Your task to perform on an android device: check google app version Image 0: 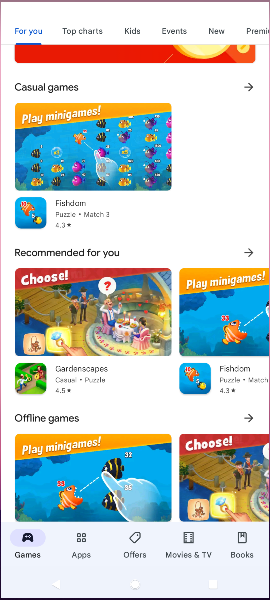
Step 0: press home button
Your task to perform on an android device: check google app version Image 1: 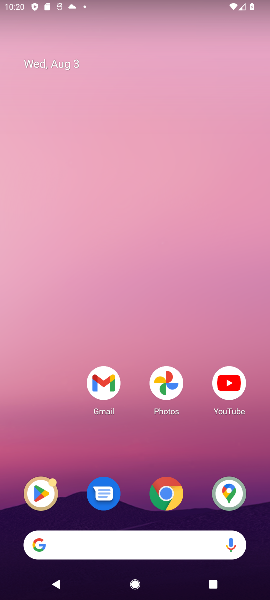
Step 1: drag from (136, 468) to (157, 30)
Your task to perform on an android device: check google app version Image 2: 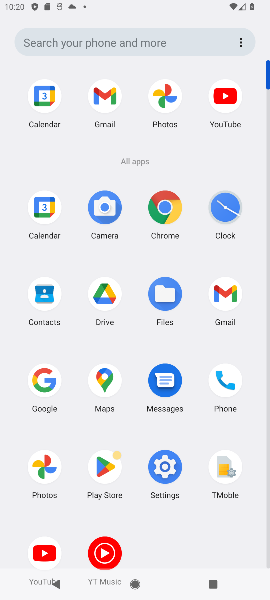
Step 2: click (42, 375)
Your task to perform on an android device: check google app version Image 3: 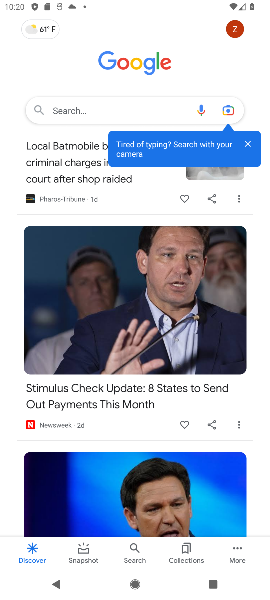
Step 3: click (236, 30)
Your task to perform on an android device: check google app version Image 4: 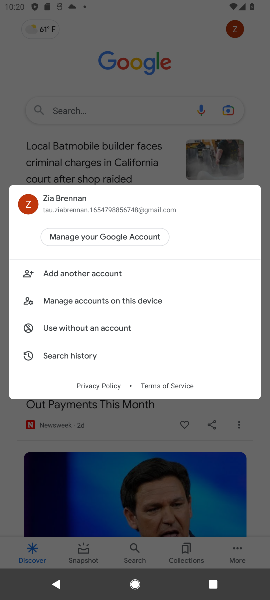
Step 4: click (227, 517)
Your task to perform on an android device: check google app version Image 5: 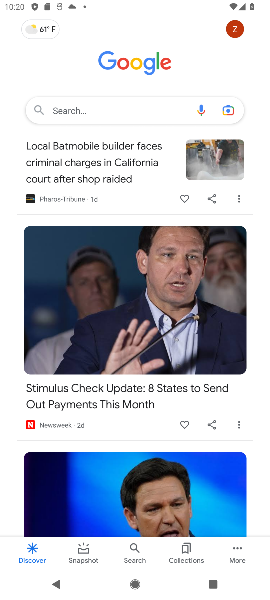
Step 5: click (238, 554)
Your task to perform on an android device: check google app version Image 6: 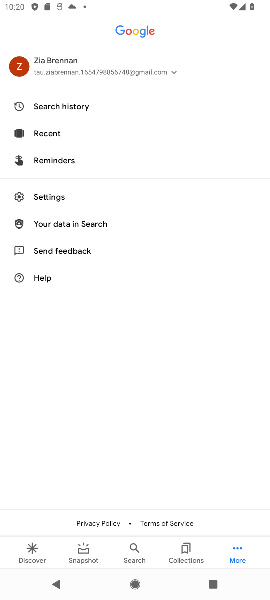
Step 6: click (59, 196)
Your task to perform on an android device: check google app version Image 7: 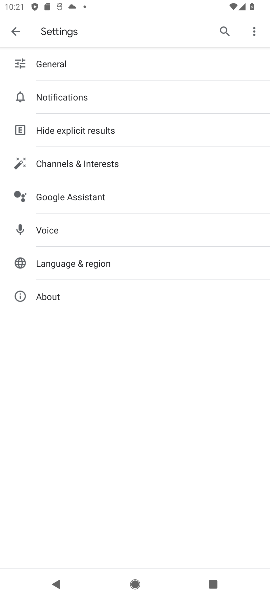
Step 7: click (58, 300)
Your task to perform on an android device: check google app version Image 8: 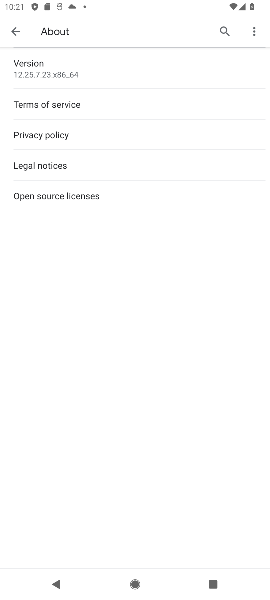
Step 8: click (61, 64)
Your task to perform on an android device: check google app version Image 9: 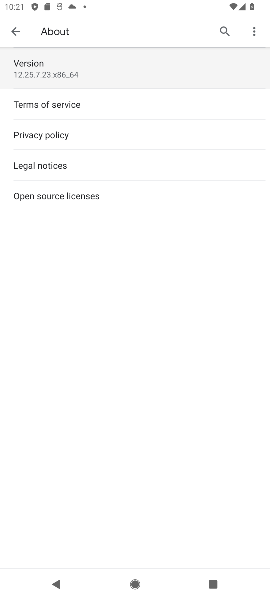
Step 9: task complete